Your task to perform on an android device: When is my next meeting? Image 0: 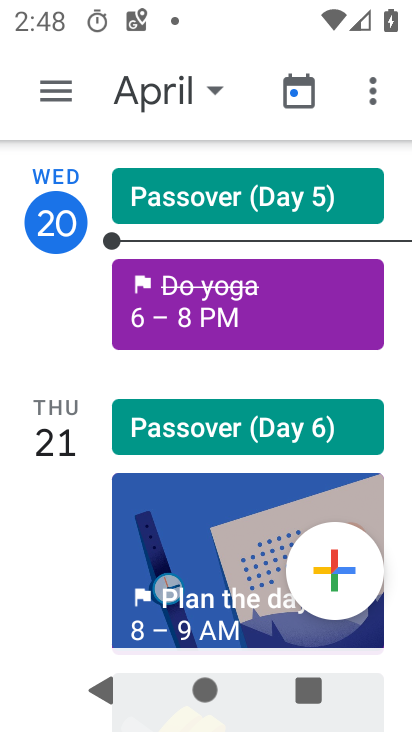
Step 0: click (227, 318)
Your task to perform on an android device: When is my next meeting? Image 1: 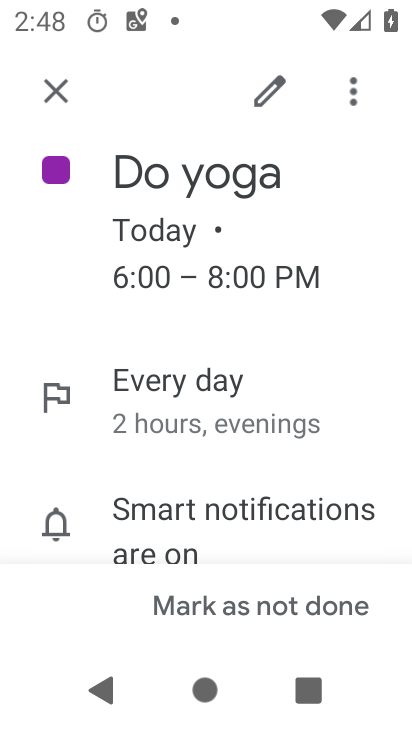
Step 1: task complete